Your task to perform on an android device: manage bookmarks in the chrome app Image 0: 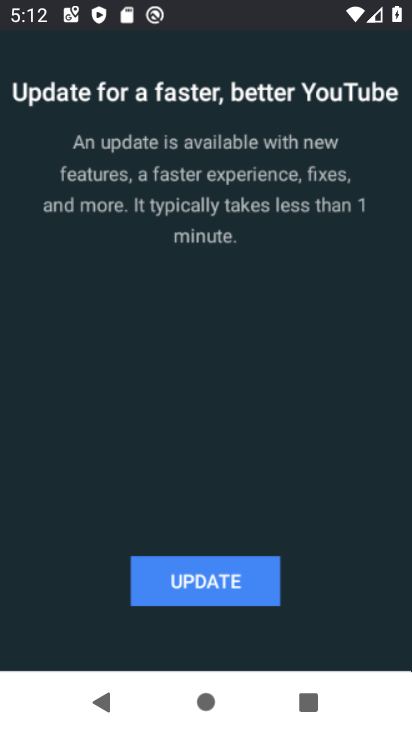
Step 0: drag from (307, 565) to (362, 59)
Your task to perform on an android device: manage bookmarks in the chrome app Image 1: 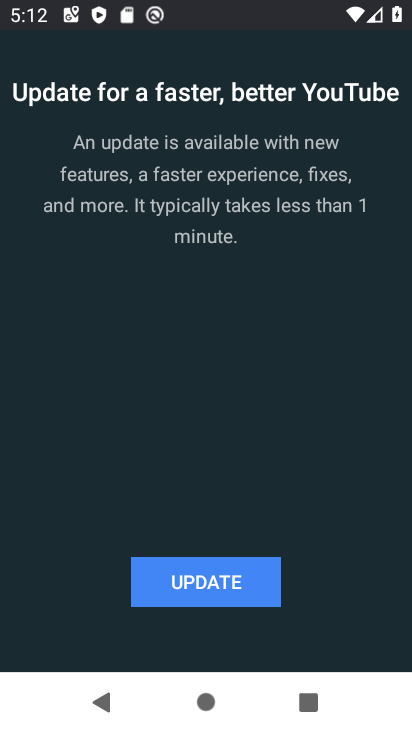
Step 1: press home button
Your task to perform on an android device: manage bookmarks in the chrome app Image 2: 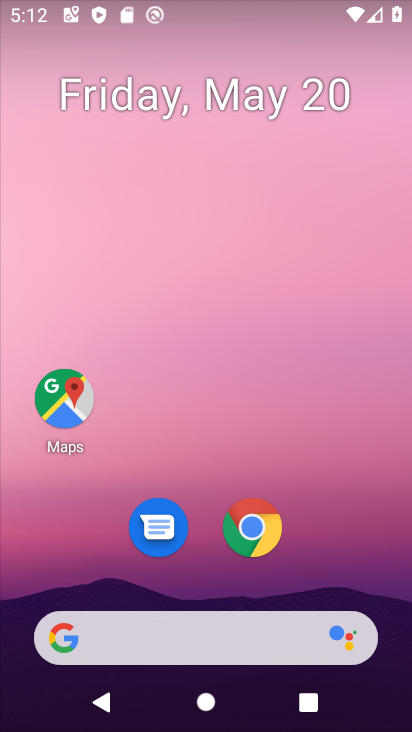
Step 2: drag from (318, 615) to (366, 6)
Your task to perform on an android device: manage bookmarks in the chrome app Image 3: 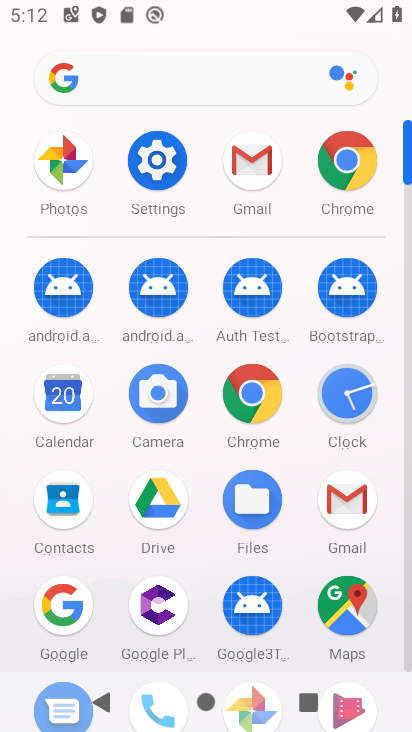
Step 3: click (265, 390)
Your task to perform on an android device: manage bookmarks in the chrome app Image 4: 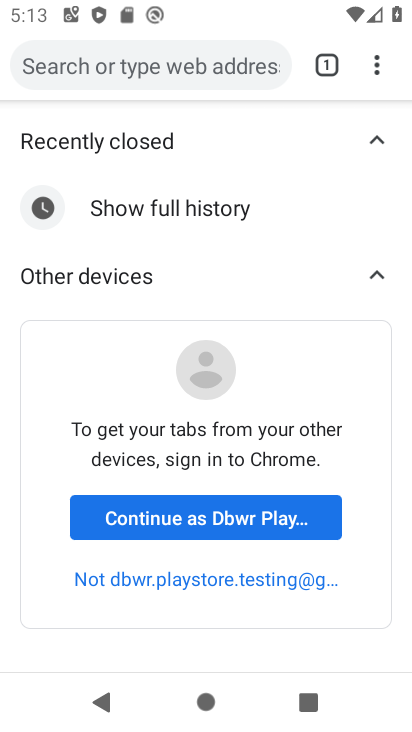
Step 4: task complete